Your task to perform on an android device: Go to network settings Image 0: 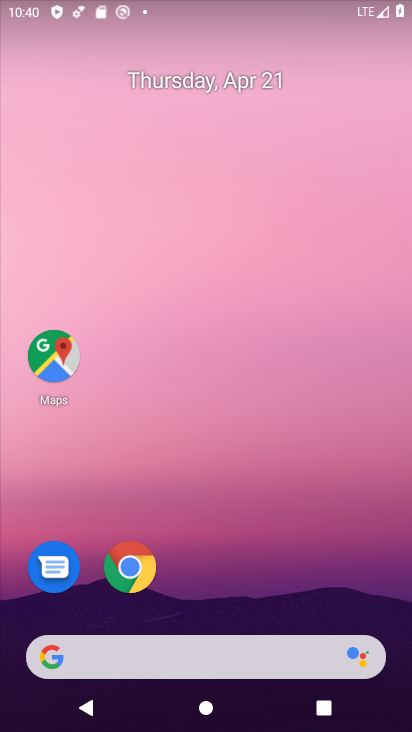
Step 0: drag from (195, 606) to (321, 5)
Your task to perform on an android device: Go to network settings Image 1: 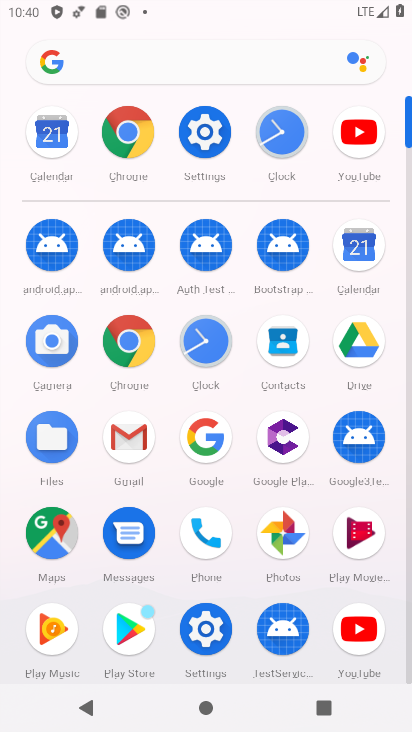
Step 1: click (205, 138)
Your task to perform on an android device: Go to network settings Image 2: 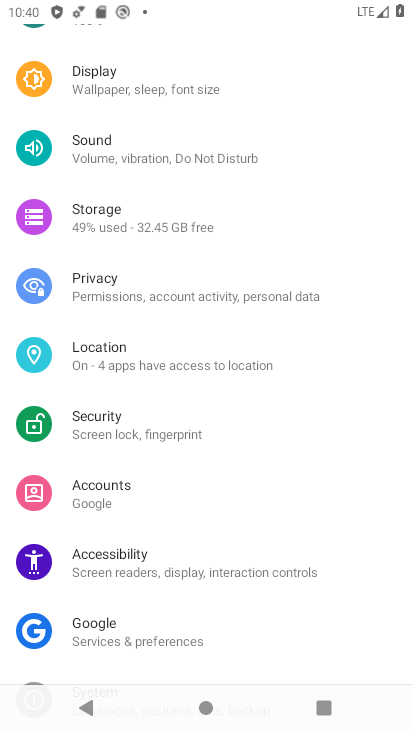
Step 2: drag from (190, 202) to (191, 484)
Your task to perform on an android device: Go to network settings Image 3: 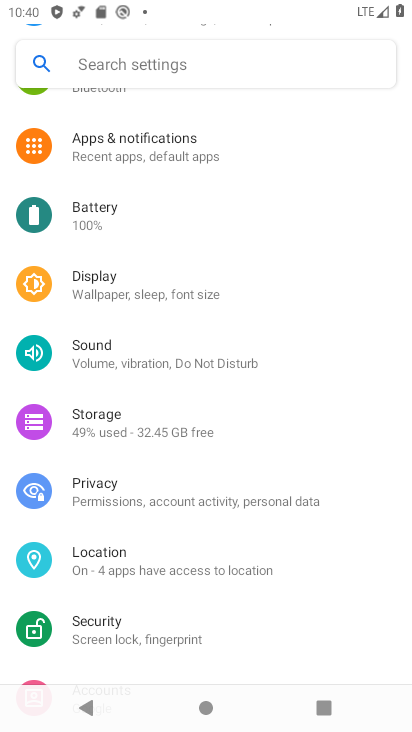
Step 3: drag from (183, 176) to (181, 537)
Your task to perform on an android device: Go to network settings Image 4: 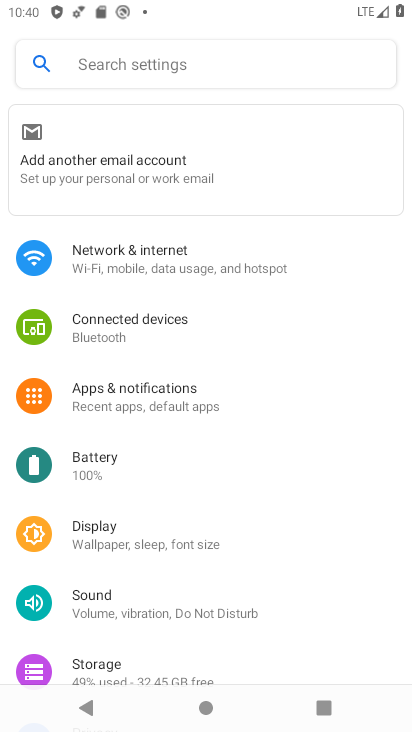
Step 4: click (158, 267)
Your task to perform on an android device: Go to network settings Image 5: 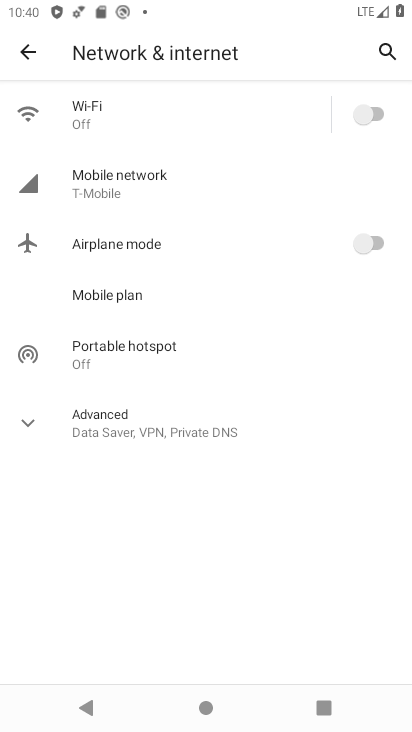
Step 5: task complete